Your task to perform on an android device: open app "Gmail" (install if not already installed) Image 0: 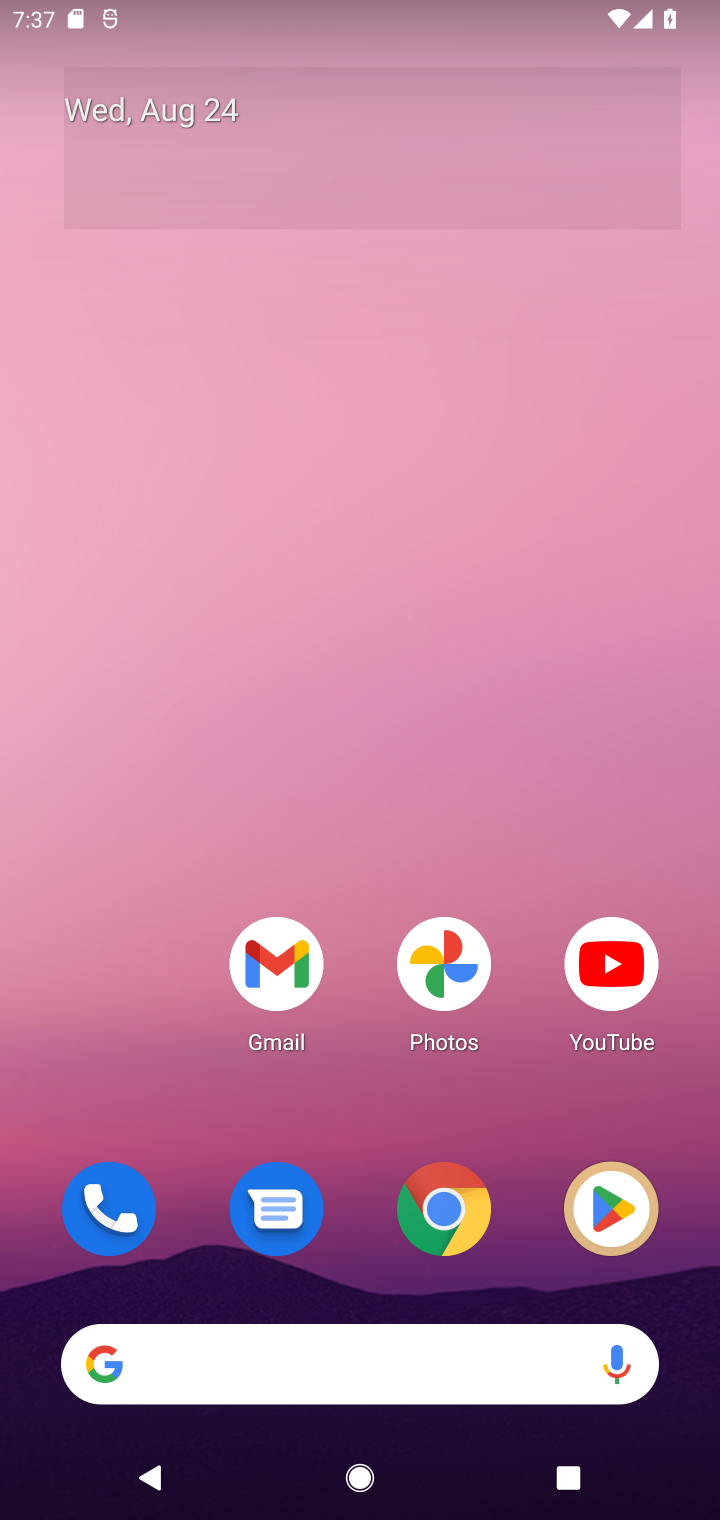
Step 0: drag from (294, 1282) to (465, 152)
Your task to perform on an android device: open app "Gmail" (install if not already installed) Image 1: 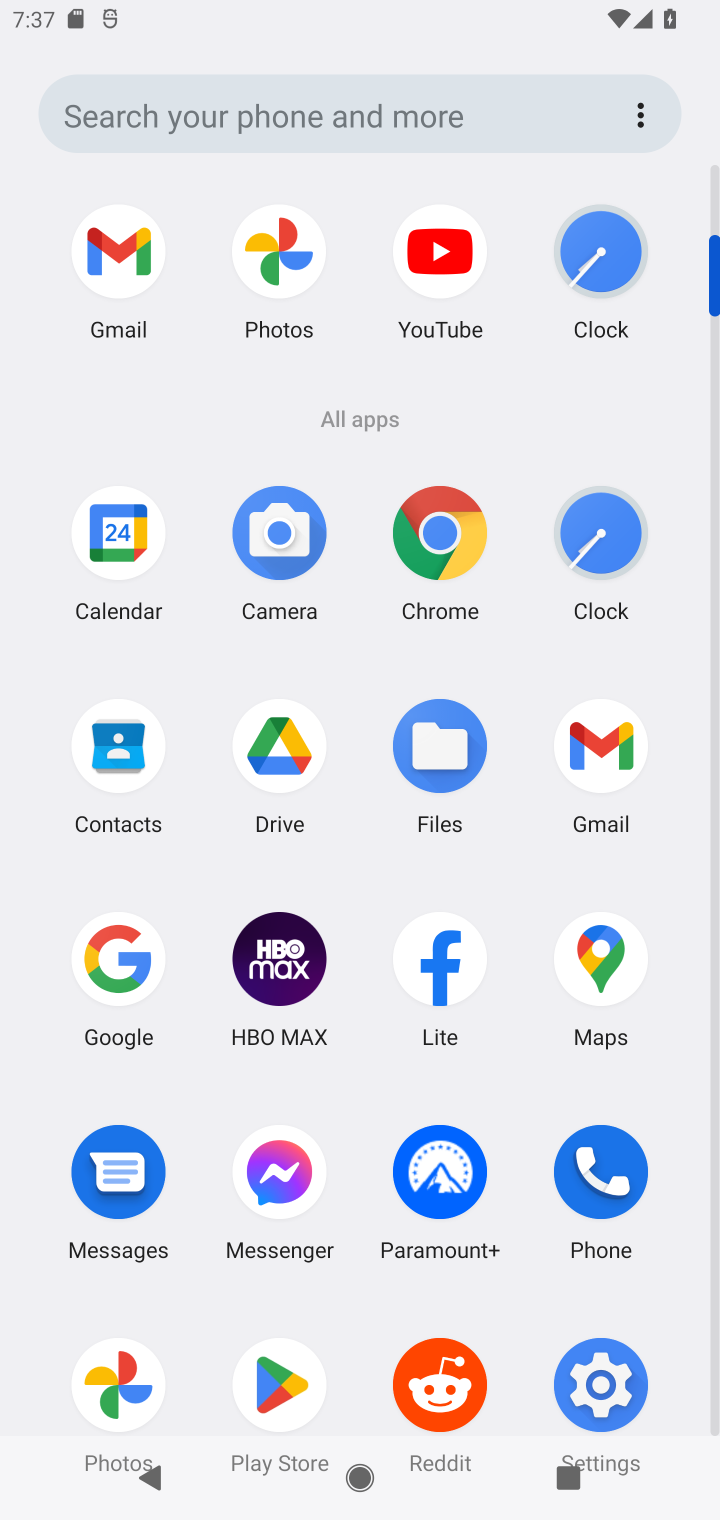
Step 1: click (294, 1382)
Your task to perform on an android device: open app "Gmail" (install if not already installed) Image 2: 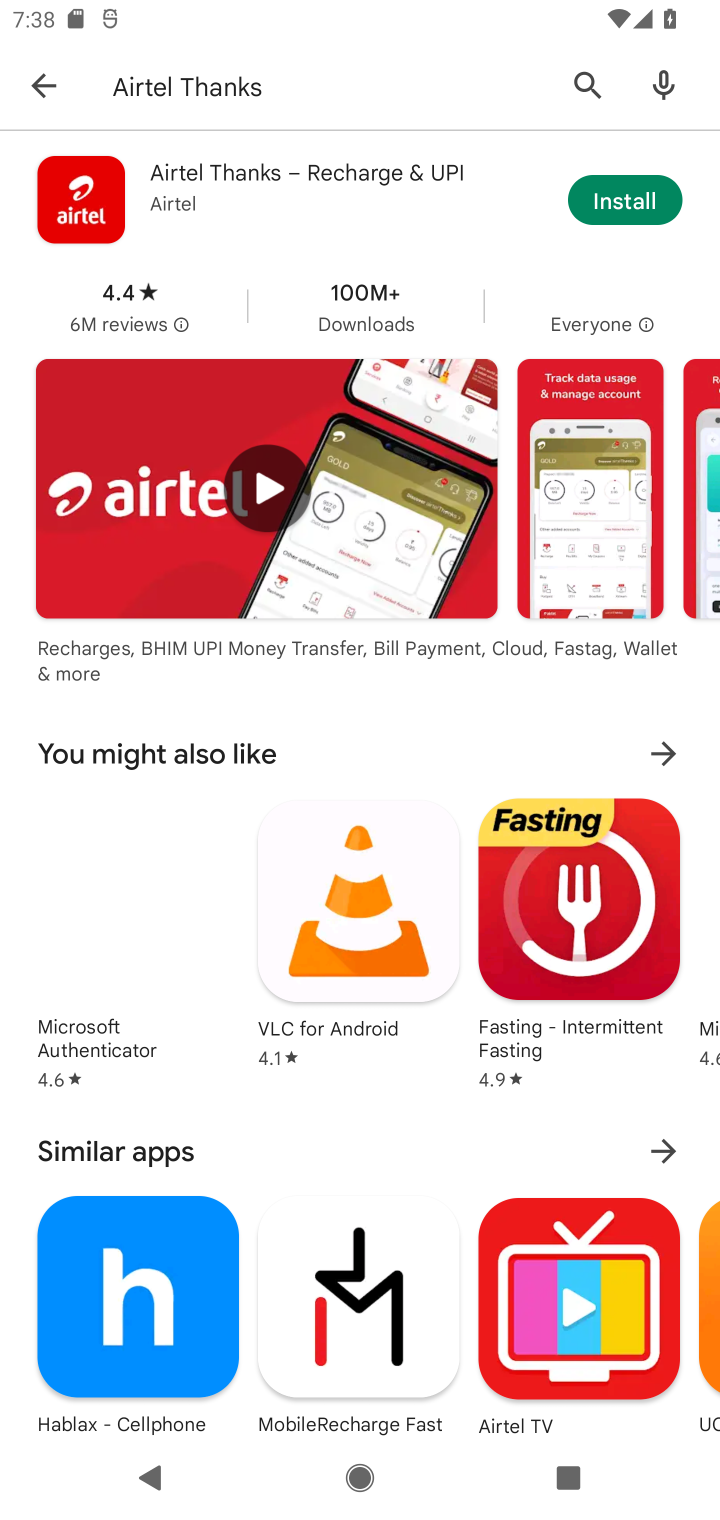
Step 2: press back button
Your task to perform on an android device: open app "Gmail" (install if not already installed) Image 3: 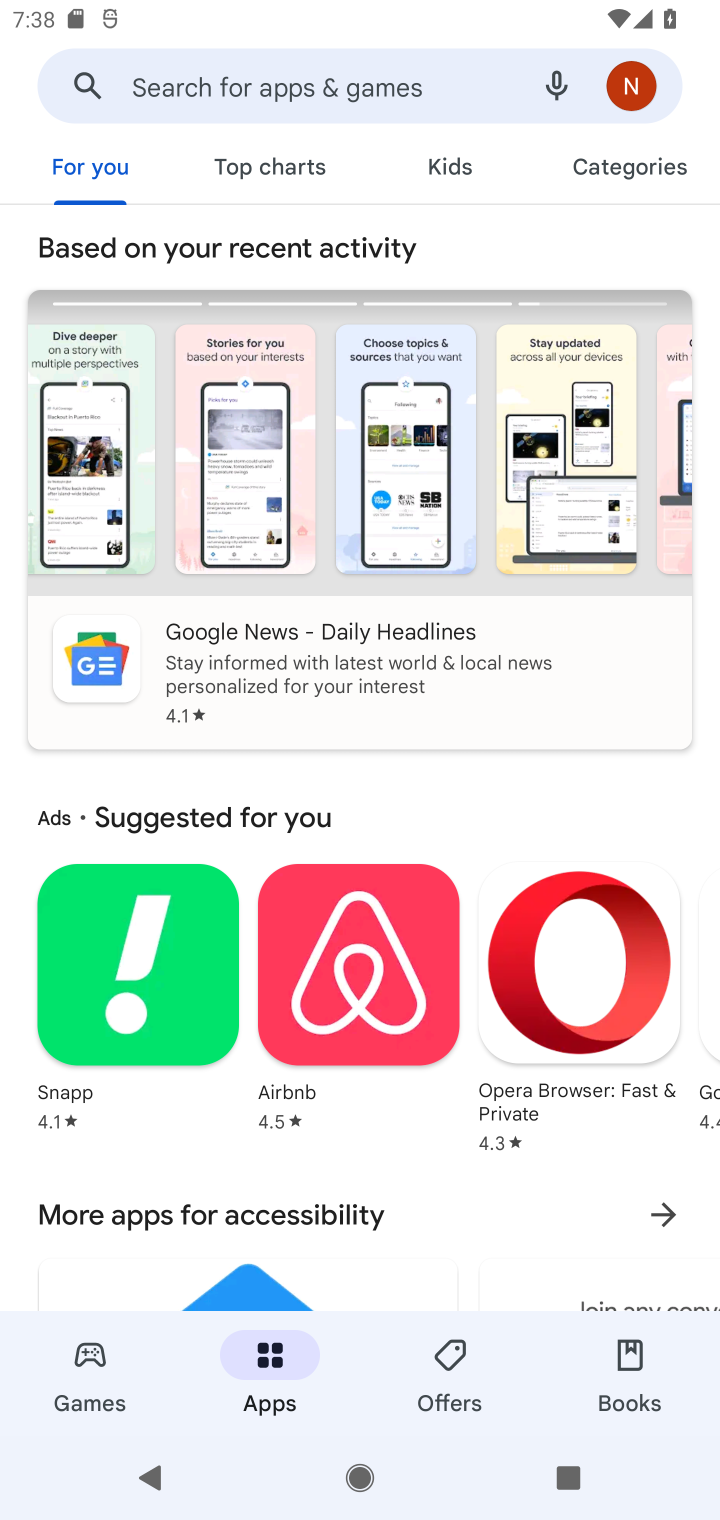
Step 3: click (370, 95)
Your task to perform on an android device: open app "Gmail" (install if not already installed) Image 4: 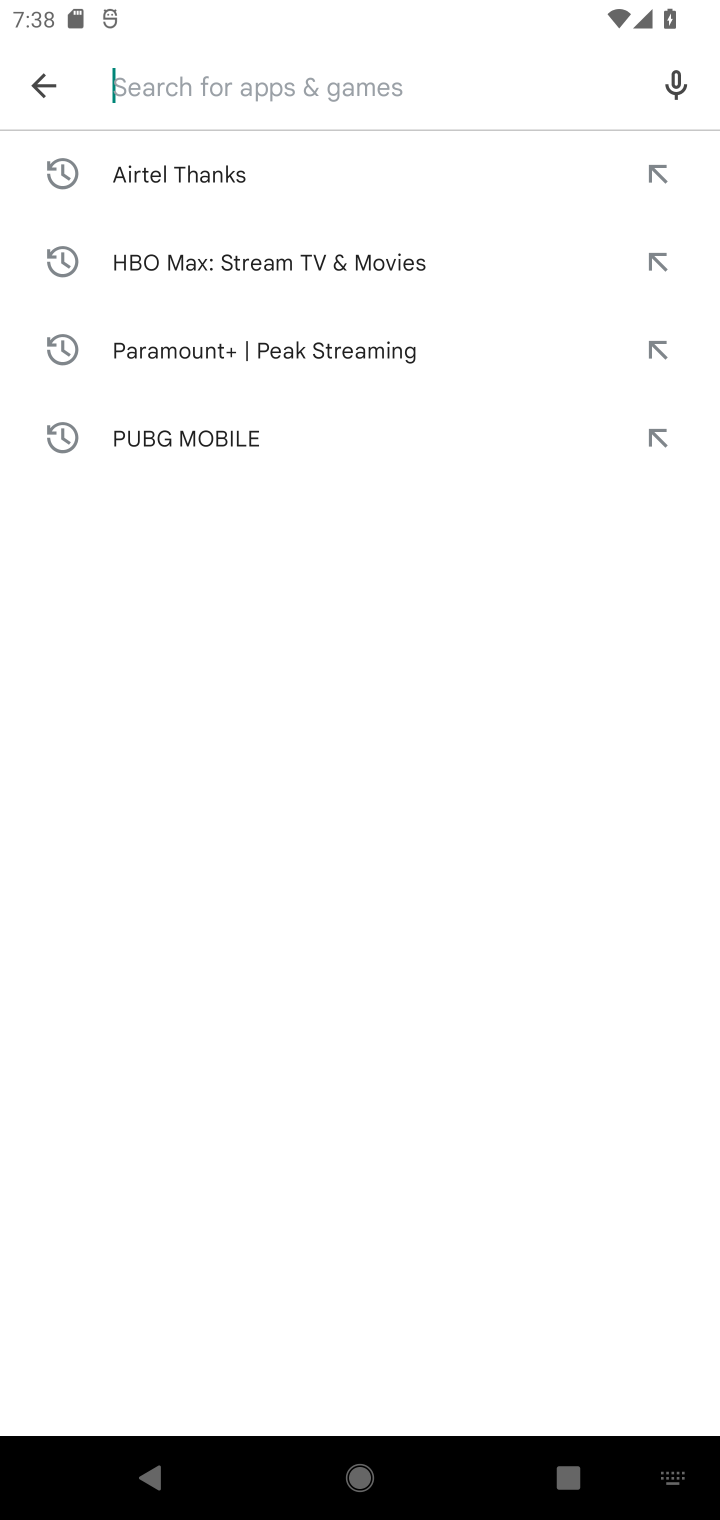
Step 4: type "Gmail"
Your task to perform on an android device: open app "Gmail" (install if not already installed) Image 5: 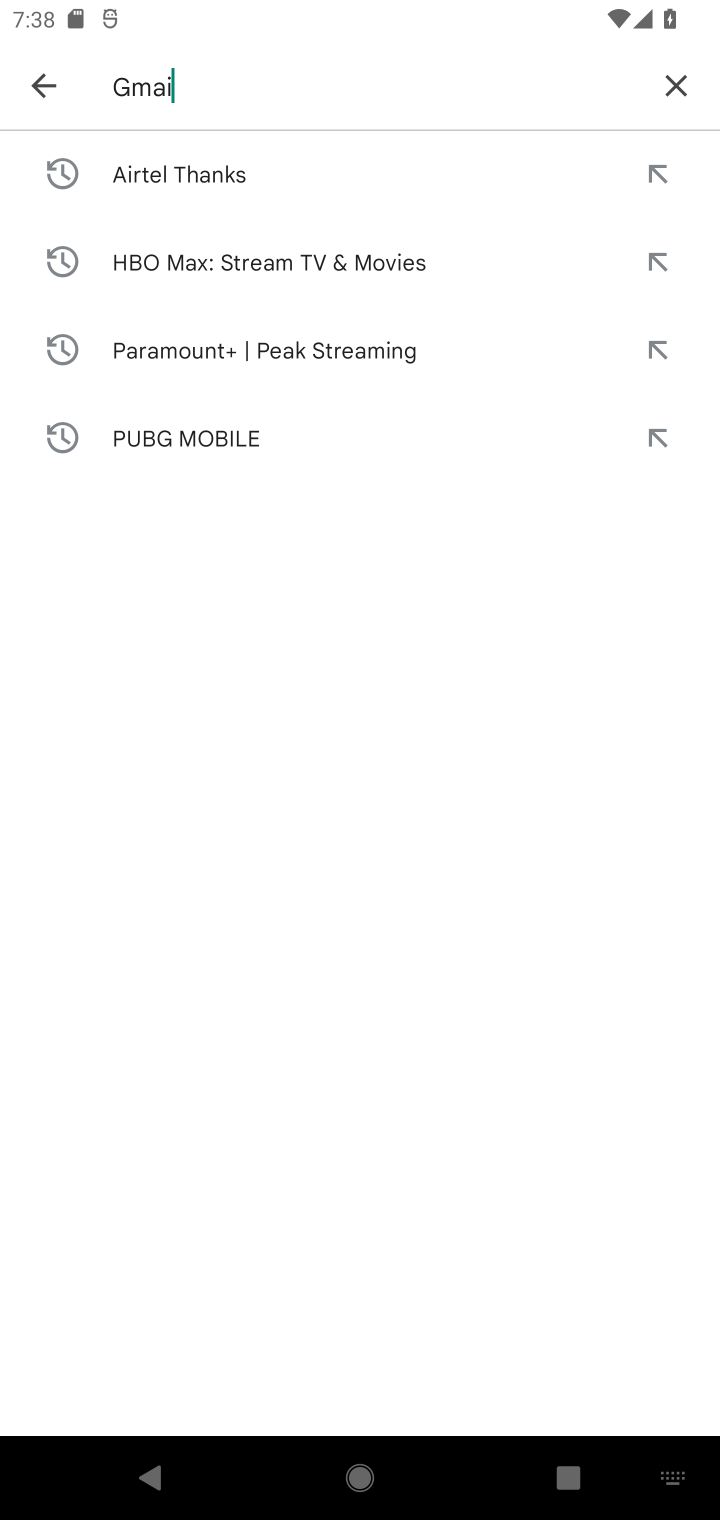
Step 5: press enter
Your task to perform on an android device: open app "Gmail" (install if not already installed) Image 6: 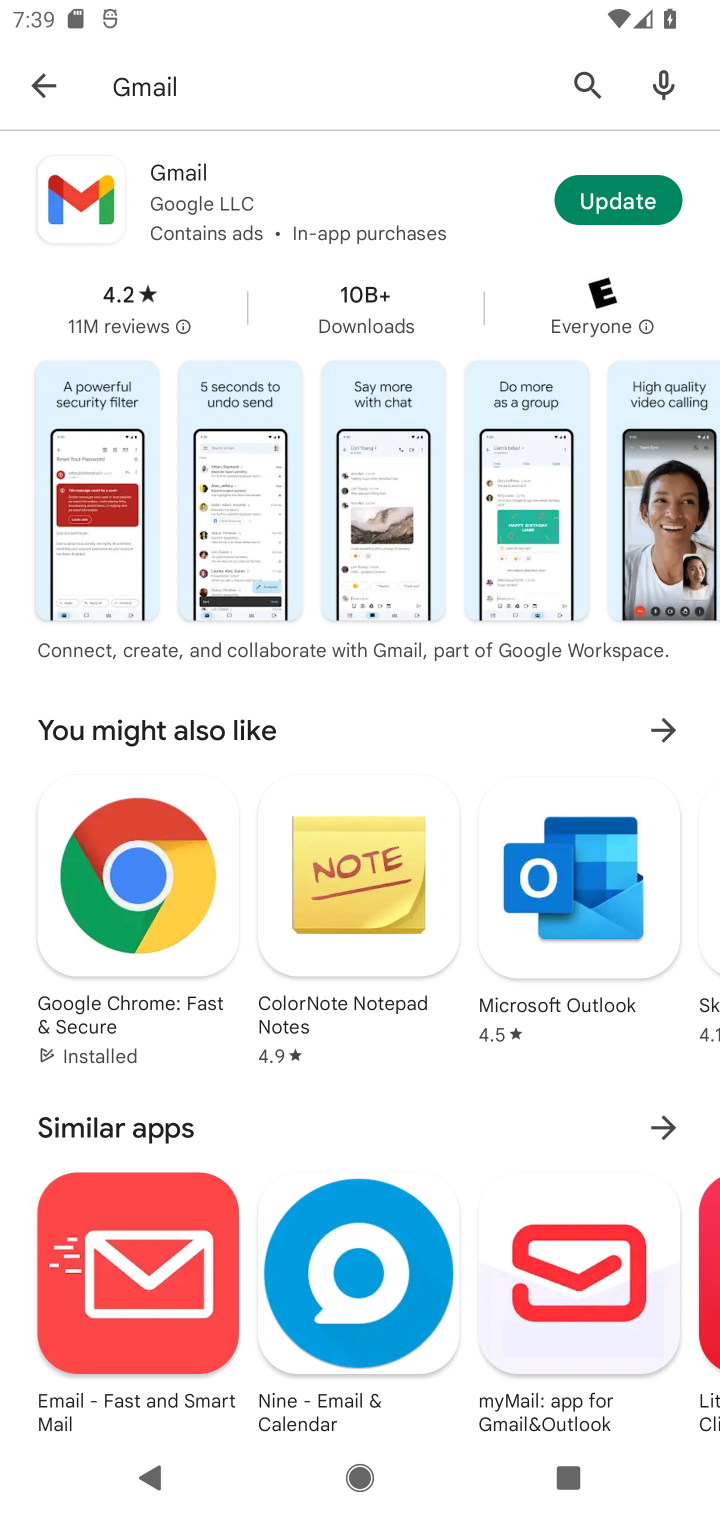
Step 6: click (657, 210)
Your task to perform on an android device: open app "Gmail" (install if not already installed) Image 7: 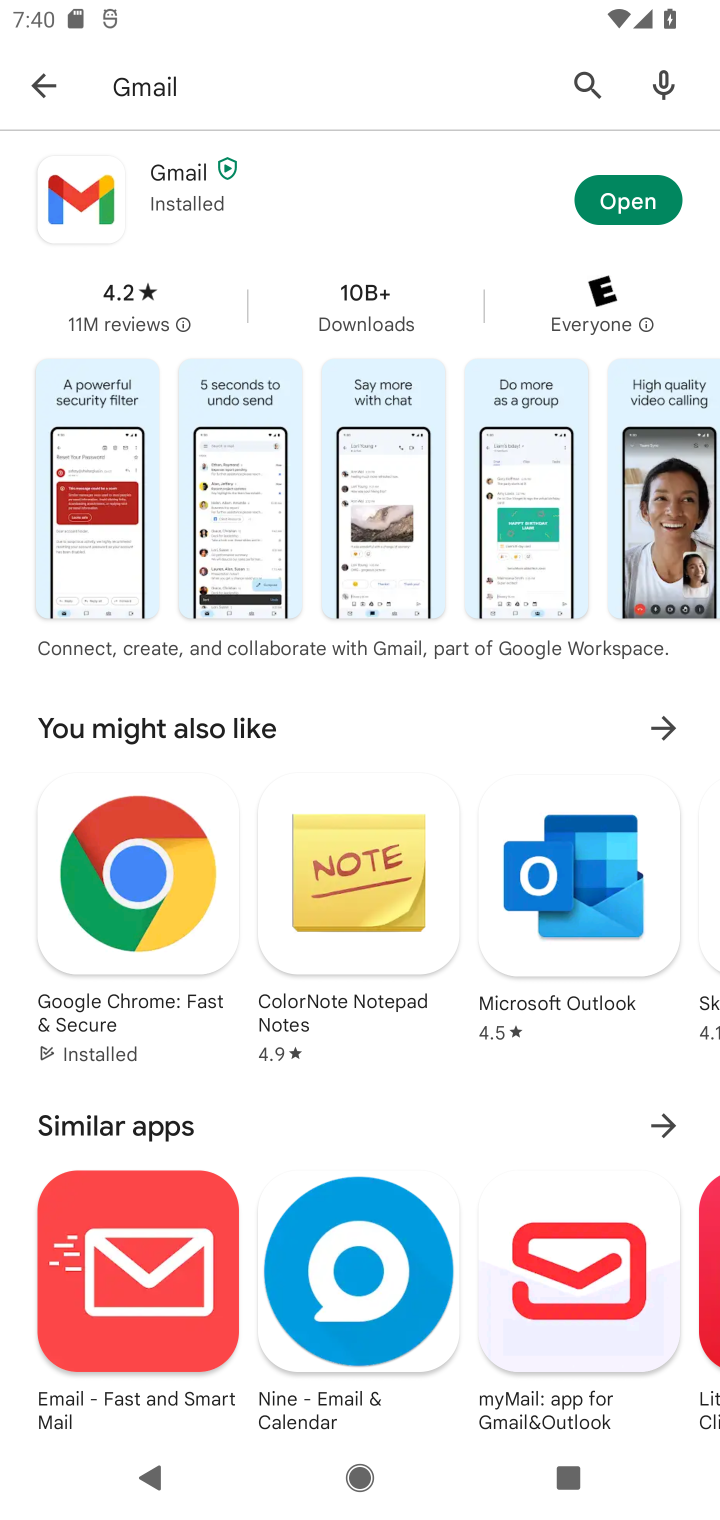
Step 7: click (643, 222)
Your task to perform on an android device: open app "Gmail" (install if not already installed) Image 8: 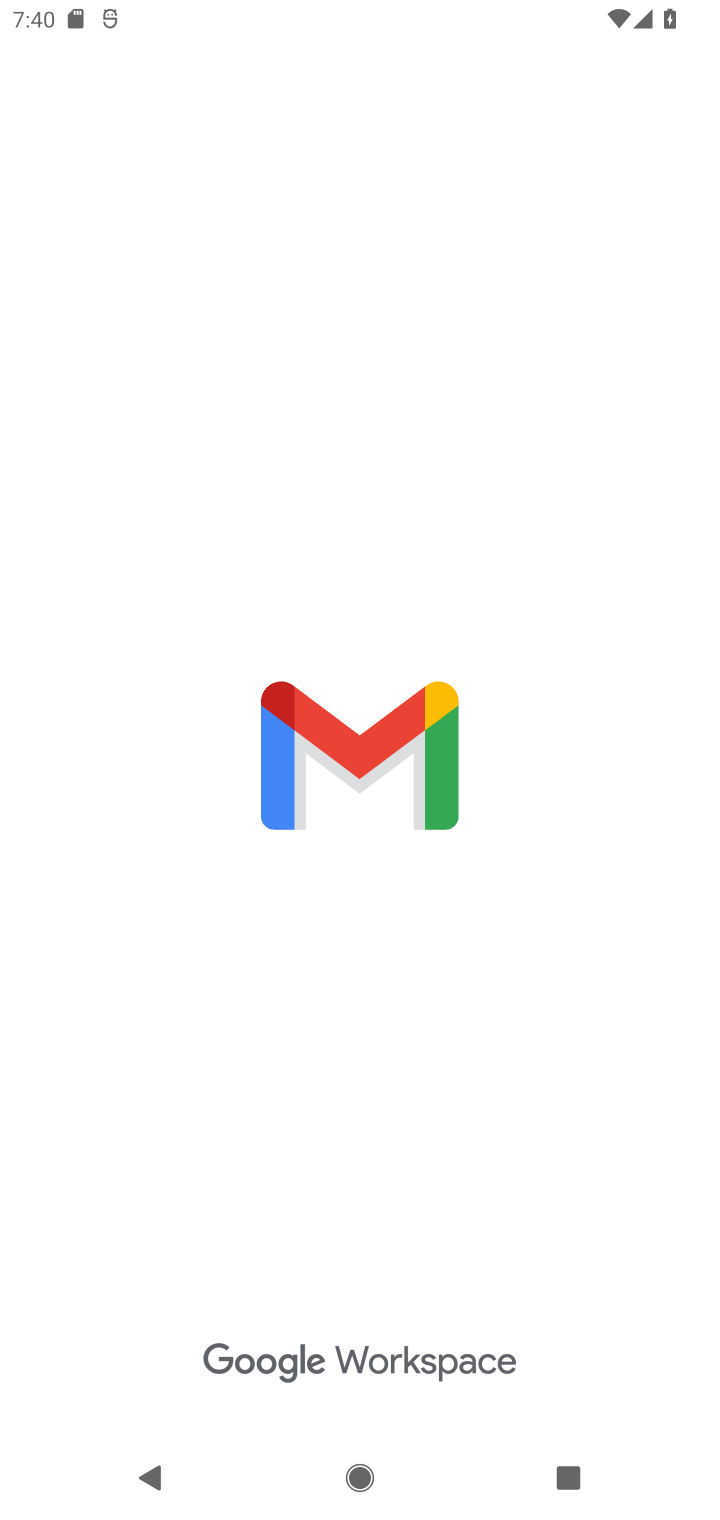
Step 8: task complete